Your task to perform on an android device: Open internet settings Image 0: 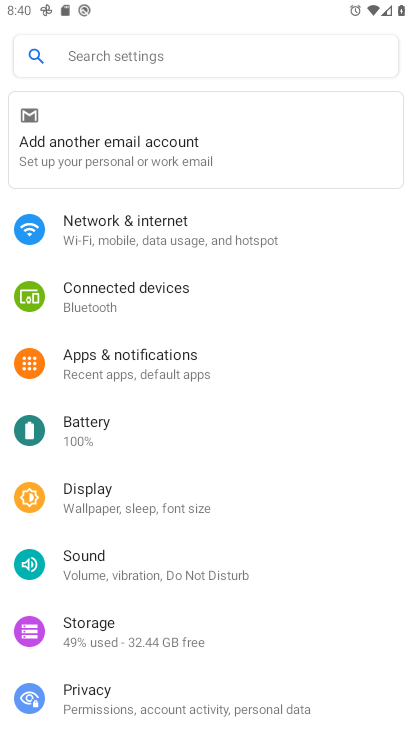
Step 0: drag from (351, 624) to (386, 384)
Your task to perform on an android device: Open internet settings Image 1: 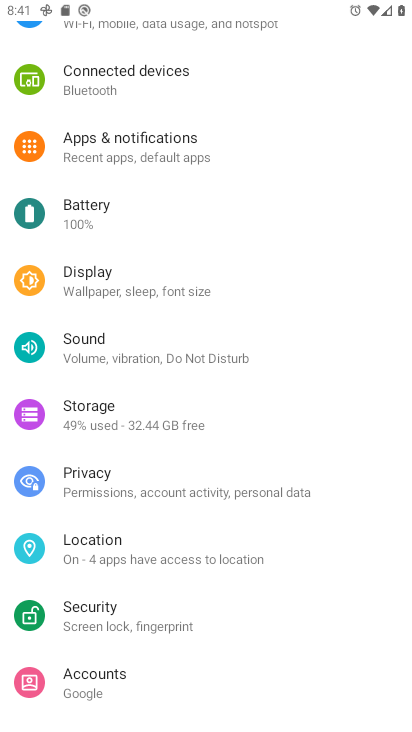
Step 1: drag from (365, 645) to (408, 324)
Your task to perform on an android device: Open internet settings Image 2: 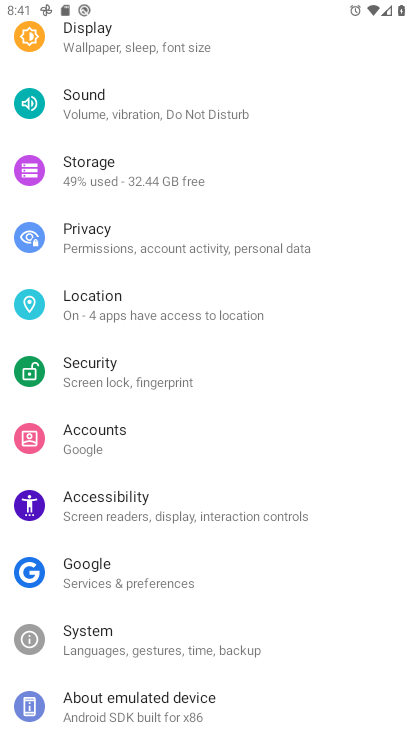
Step 2: drag from (352, 587) to (348, 354)
Your task to perform on an android device: Open internet settings Image 3: 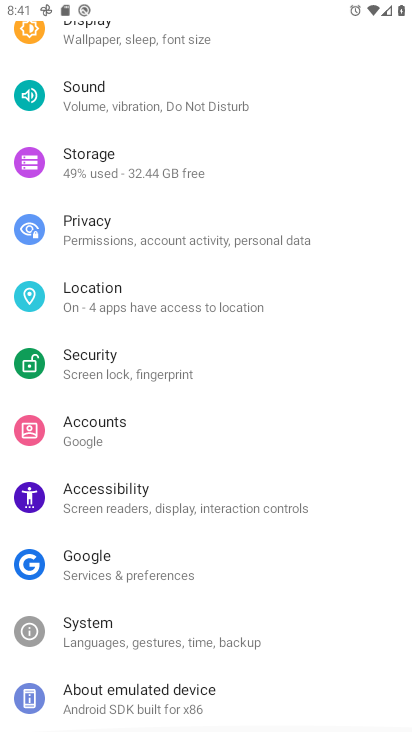
Step 3: drag from (360, 219) to (370, 465)
Your task to perform on an android device: Open internet settings Image 4: 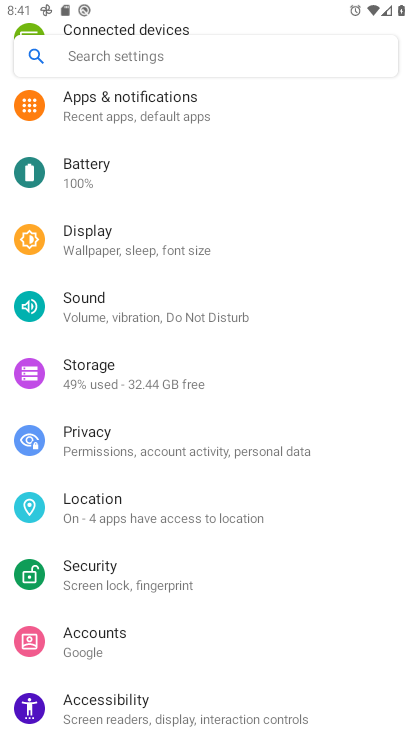
Step 4: drag from (361, 264) to (363, 505)
Your task to perform on an android device: Open internet settings Image 5: 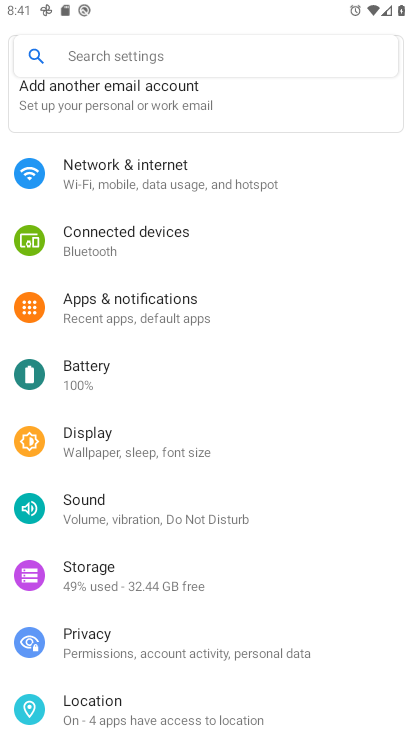
Step 5: drag from (345, 206) to (352, 416)
Your task to perform on an android device: Open internet settings Image 6: 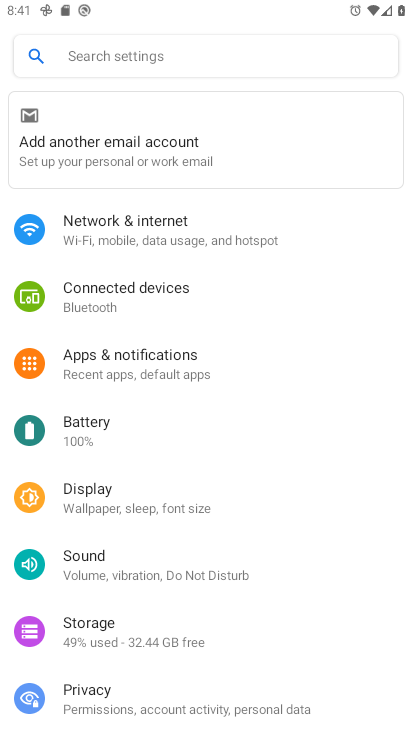
Step 6: click (233, 217)
Your task to perform on an android device: Open internet settings Image 7: 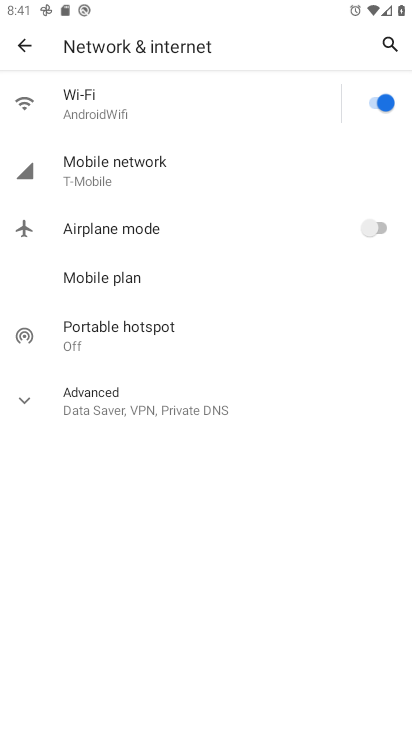
Step 7: task complete